Your task to perform on an android device: toggle javascript in the chrome app Image 0: 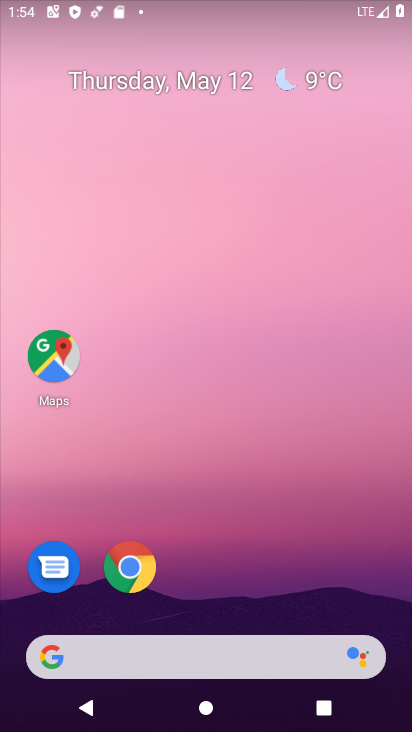
Step 0: drag from (225, 591) to (237, 148)
Your task to perform on an android device: toggle javascript in the chrome app Image 1: 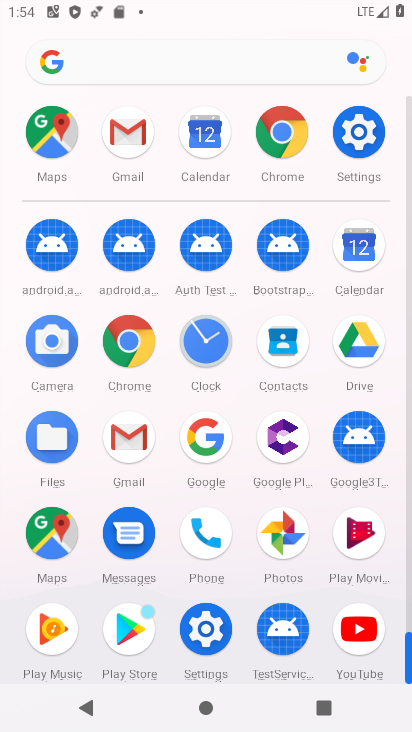
Step 1: click (297, 172)
Your task to perform on an android device: toggle javascript in the chrome app Image 2: 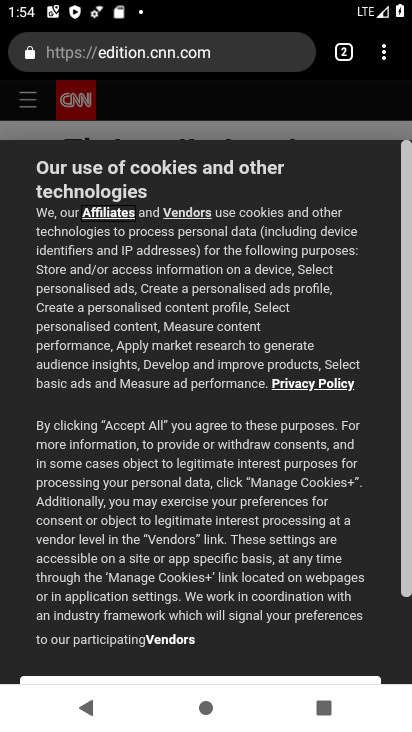
Step 2: click (388, 48)
Your task to perform on an android device: toggle javascript in the chrome app Image 3: 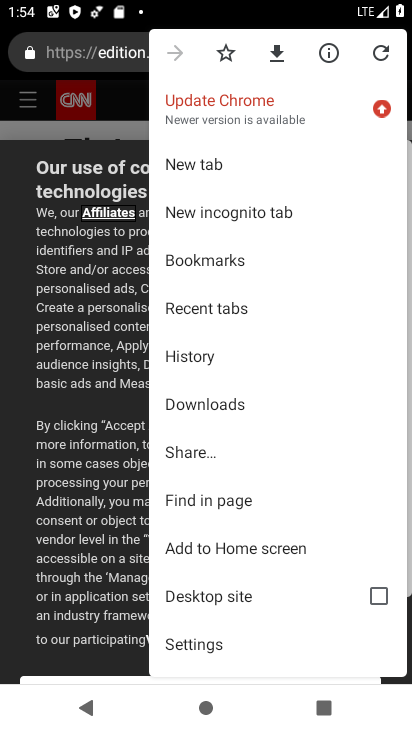
Step 3: click (207, 650)
Your task to perform on an android device: toggle javascript in the chrome app Image 4: 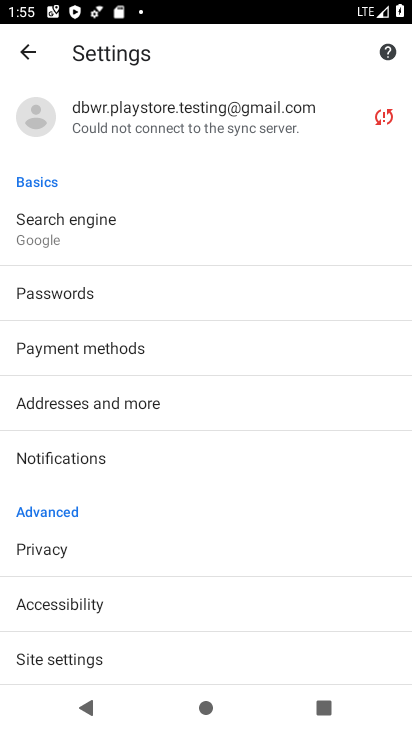
Step 4: drag from (96, 629) to (173, 247)
Your task to perform on an android device: toggle javascript in the chrome app Image 5: 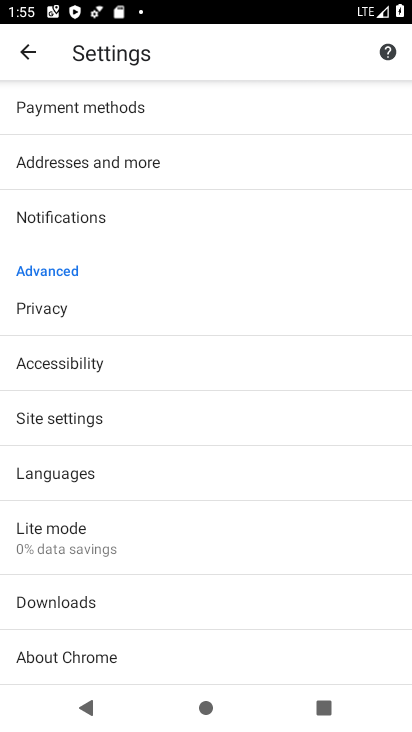
Step 5: click (65, 415)
Your task to perform on an android device: toggle javascript in the chrome app Image 6: 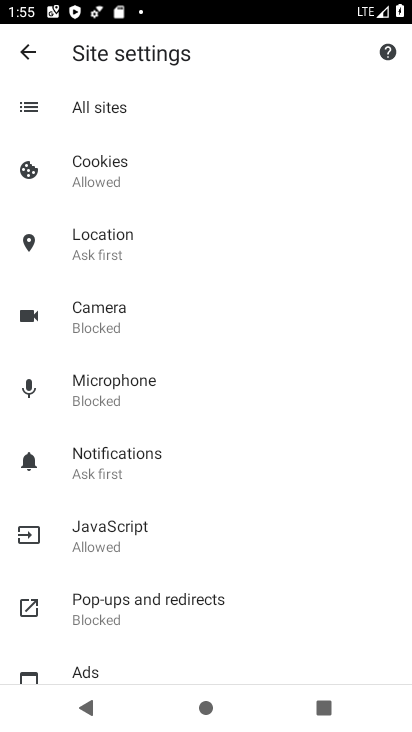
Step 6: click (99, 540)
Your task to perform on an android device: toggle javascript in the chrome app Image 7: 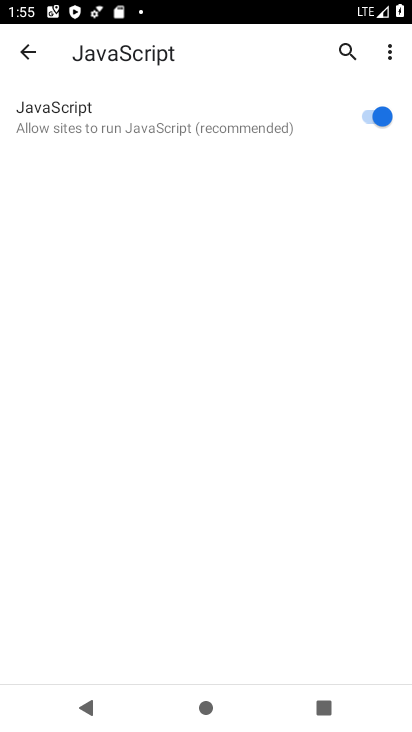
Step 7: click (369, 119)
Your task to perform on an android device: toggle javascript in the chrome app Image 8: 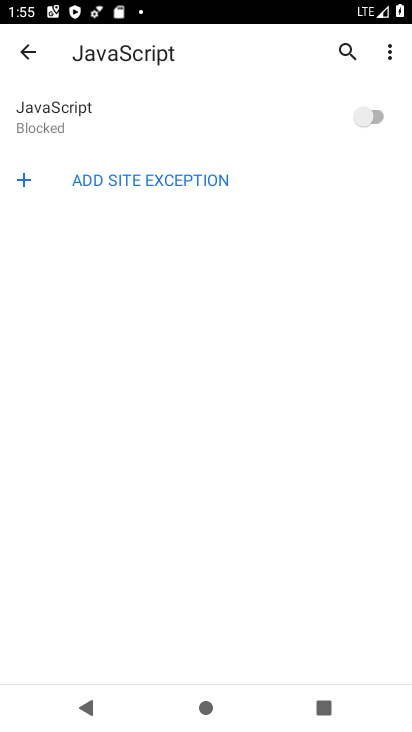
Step 8: task complete